Your task to perform on an android device: change notifications settings Image 0: 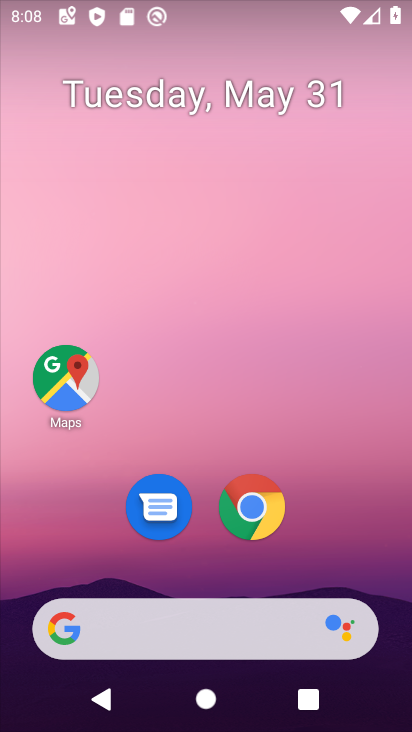
Step 0: drag from (352, 507) to (345, 160)
Your task to perform on an android device: change notifications settings Image 1: 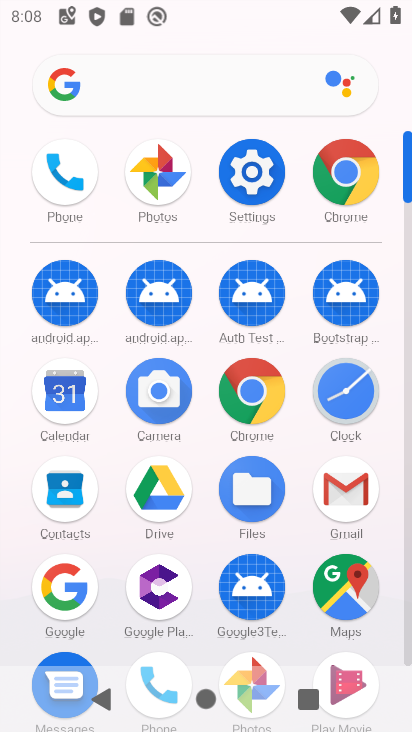
Step 1: click (251, 153)
Your task to perform on an android device: change notifications settings Image 2: 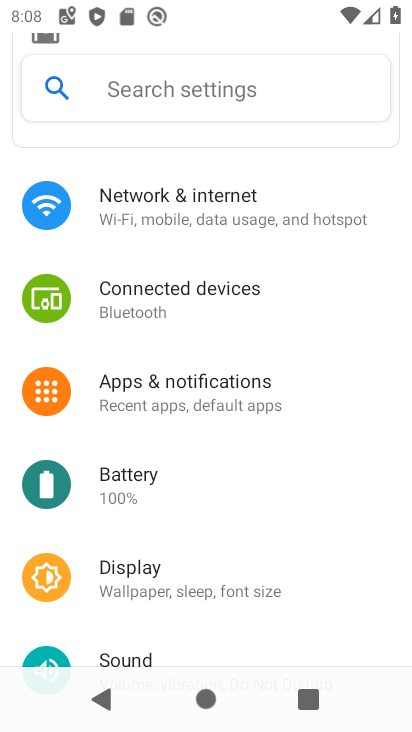
Step 2: drag from (252, 154) to (250, 475)
Your task to perform on an android device: change notifications settings Image 3: 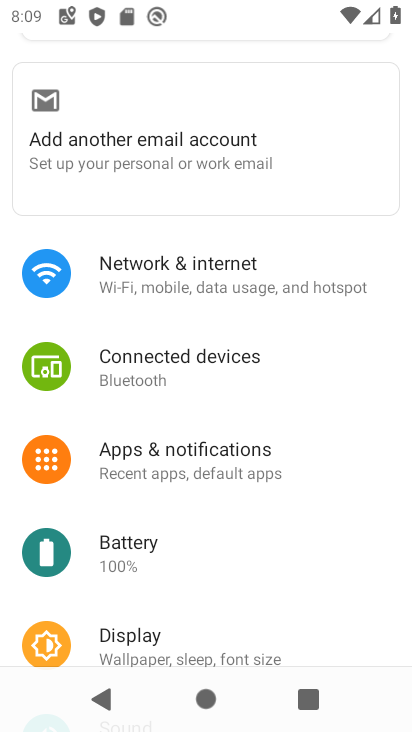
Step 3: click (246, 460)
Your task to perform on an android device: change notifications settings Image 4: 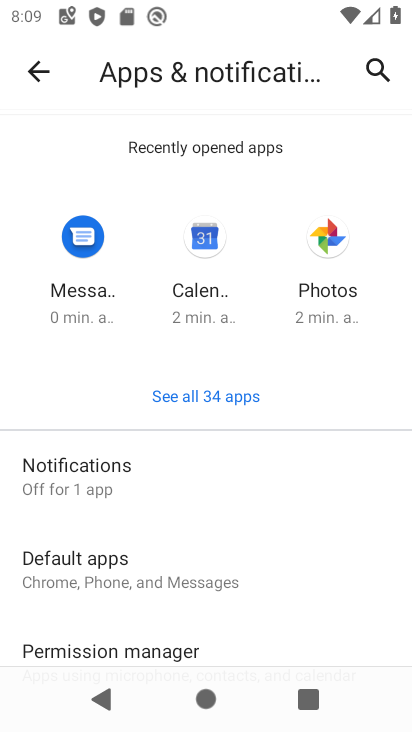
Step 4: click (119, 479)
Your task to perform on an android device: change notifications settings Image 5: 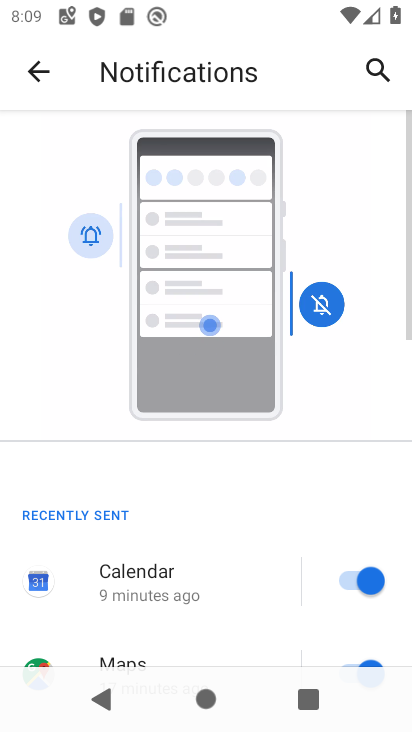
Step 5: drag from (226, 564) to (286, 167)
Your task to perform on an android device: change notifications settings Image 6: 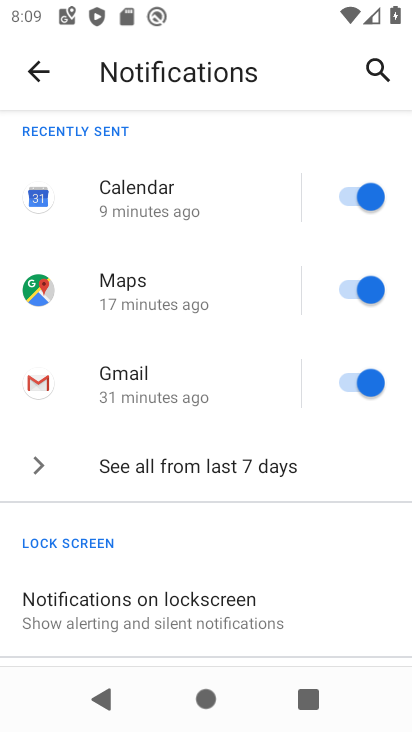
Step 6: drag from (240, 560) to (273, 281)
Your task to perform on an android device: change notifications settings Image 7: 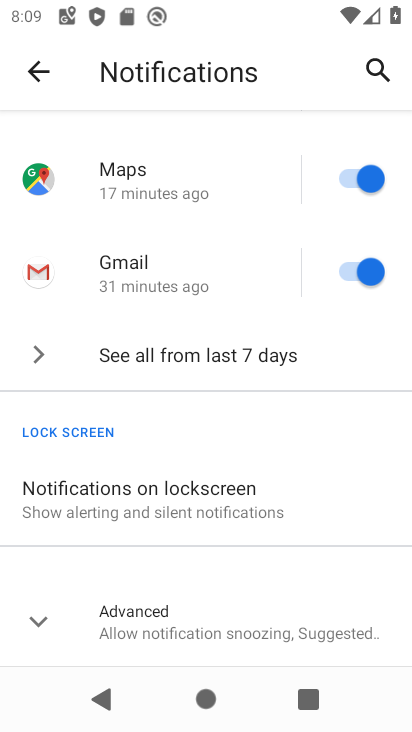
Step 7: click (139, 600)
Your task to perform on an android device: change notifications settings Image 8: 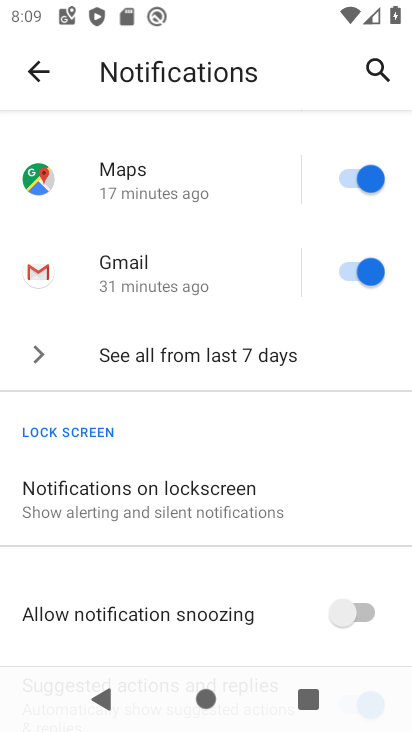
Step 8: click (343, 602)
Your task to perform on an android device: change notifications settings Image 9: 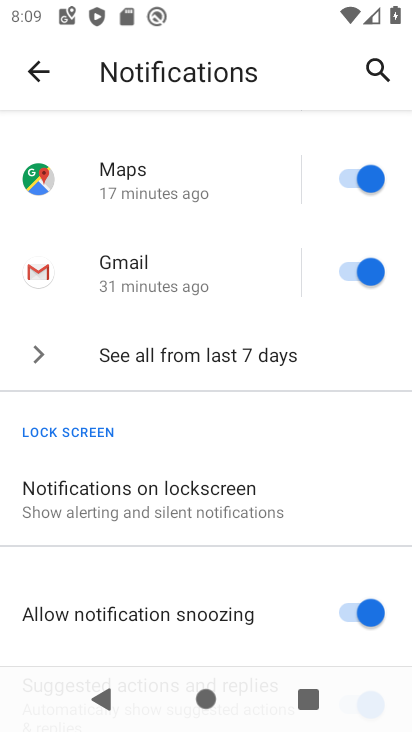
Step 9: task complete